Your task to perform on an android device: Open internet settings Image 0: 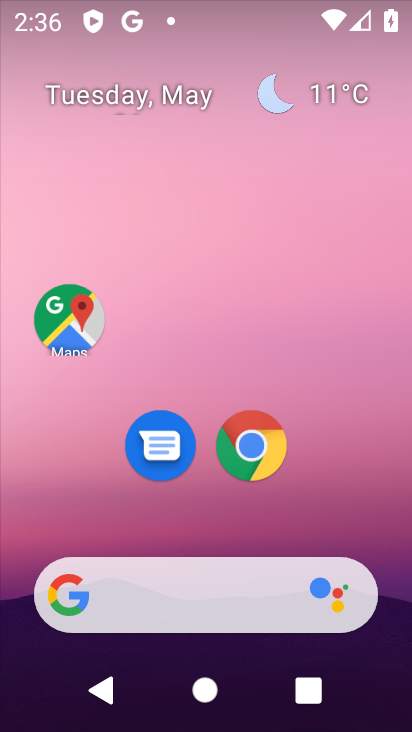
Step 0: drag from (197, 558) to (194, 230)
Your task to perform on an android device: Open internet settings Image 1: 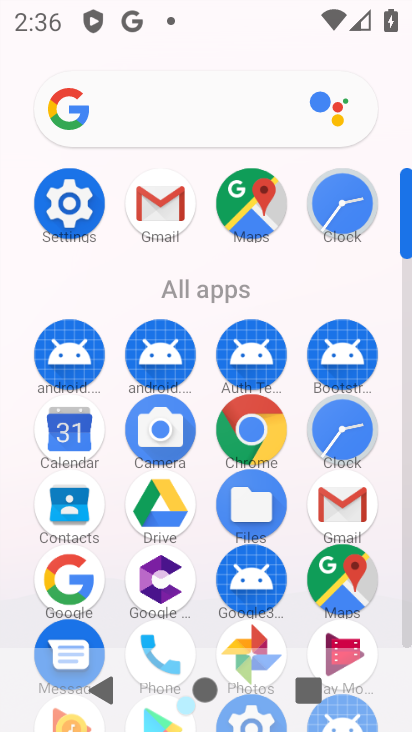
Step 1: click (86, 209)
Your task to perform on an android device: Open internet settings Image 2: 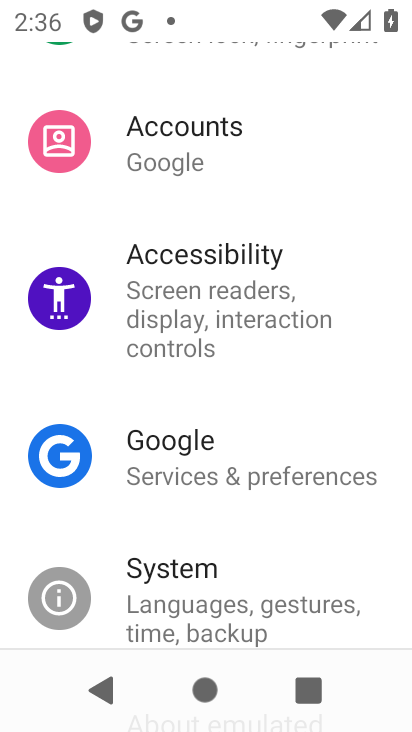
Step 2: drag from (207, 138) to (172, 557)
Your task to perform on an android device: Open internet settings Image 3: 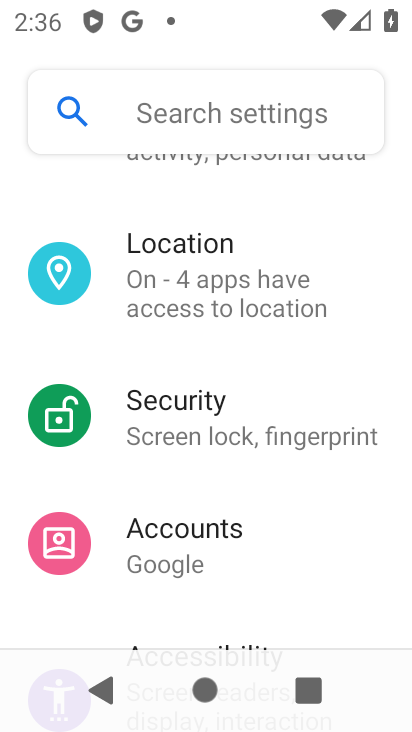
Step 3: drag from (205, 182) to (210, 572)
Your task to perform on an android device: Open internet settings Image 4: 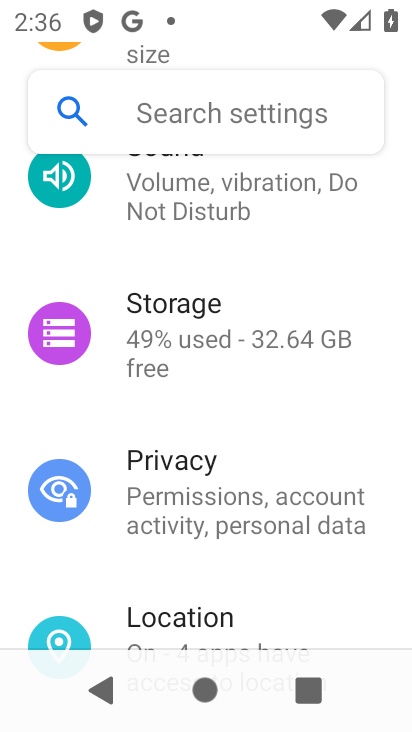
Step 4: drag from (228, 178) to (164, 584)
Your task to perform on an android device: Open internet settings Image 5: 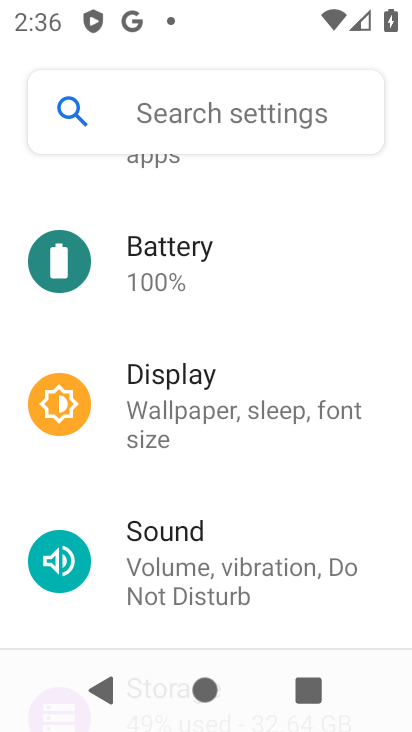
Step 5: drag from (229, 190) to (191, 619)
Your task to perform on an android device: Open internet settings Image 6: 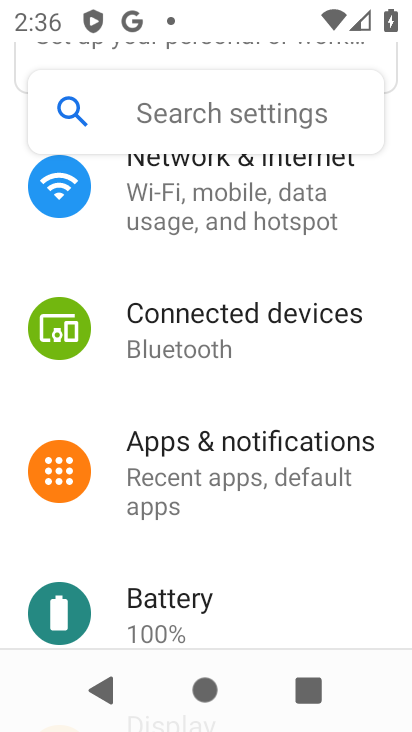
Step 6: click (212, 171)
Your task to perform on an android device: Open internet settings Image 7: 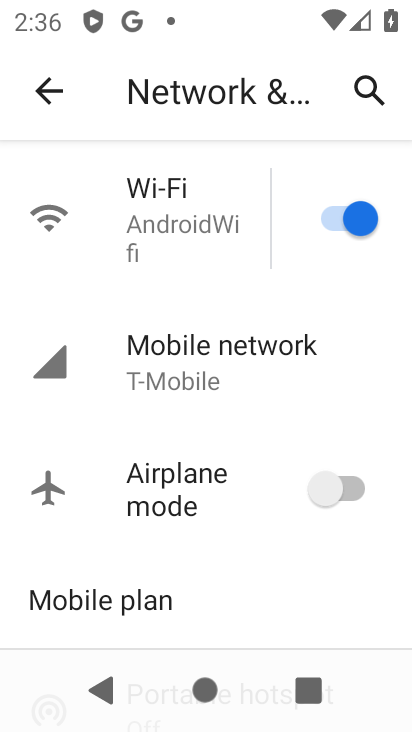
Step 7: task complete